Your task to perform on an android device: Go to internet settings Image 0: 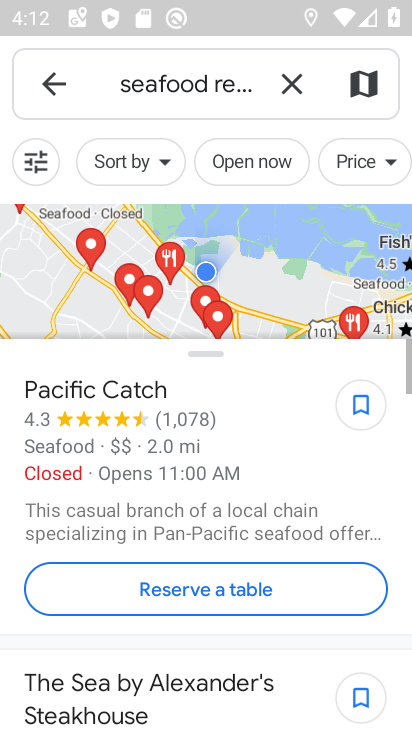
Step 0: press back button
Your task to perform on an android device: Go to internet settings Image 1: 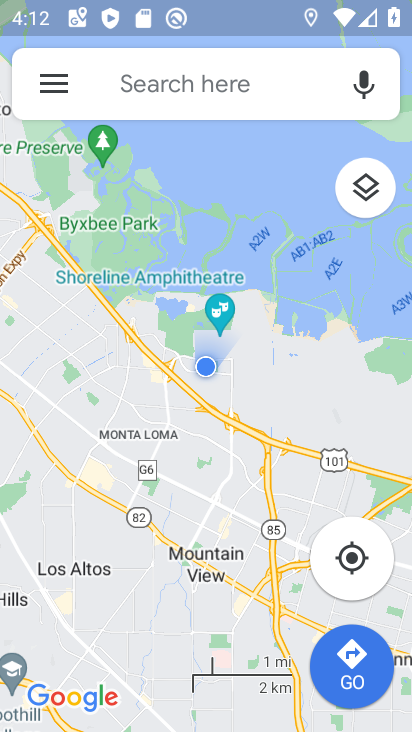
Step 1: press back button
Your task to perform on an android device: Go to internet settings Image 2: 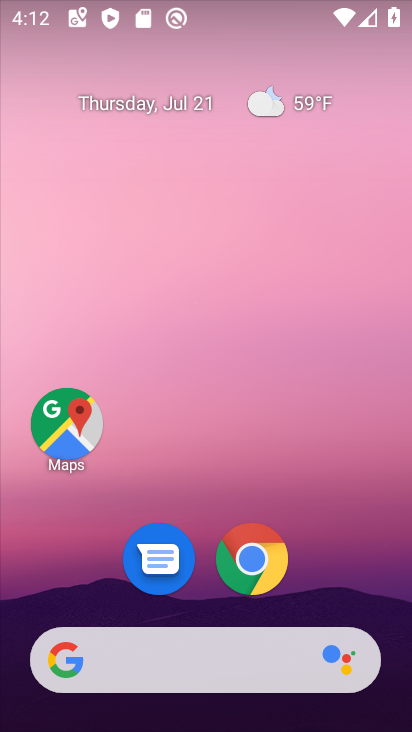
Step 2: drag from (175, 595) to (247, 47)
Your task to perform on an android device: Go to internet settings Image 3: 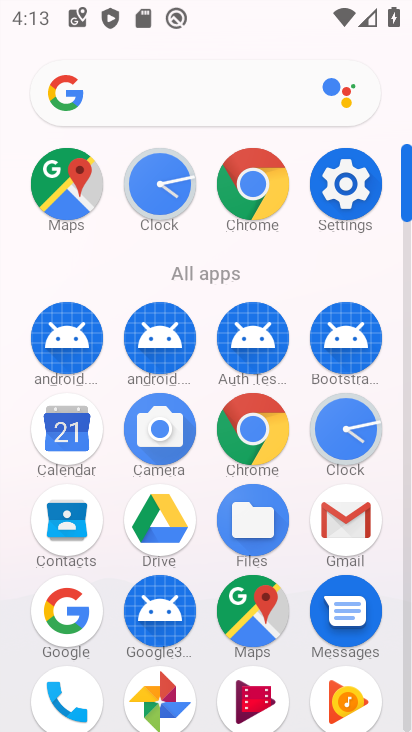
Step 3: click (369, 185)
Your task to perform on an android device: Go to internet settings Image 4: 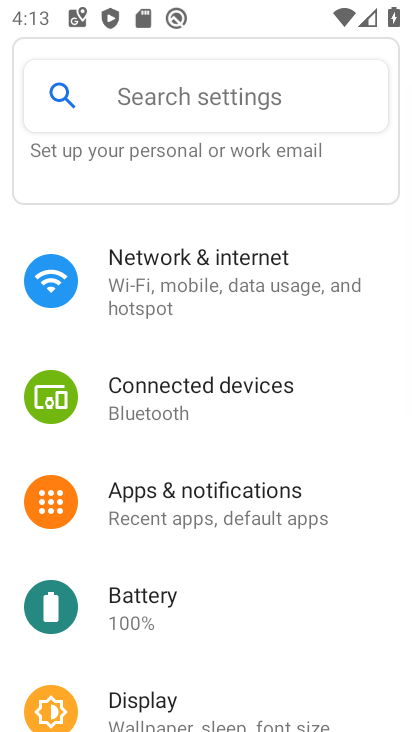
Step 4: drag from (251, 223) to (252, 633)
Your task to perform on an android device: Go to internet settings Image 5: 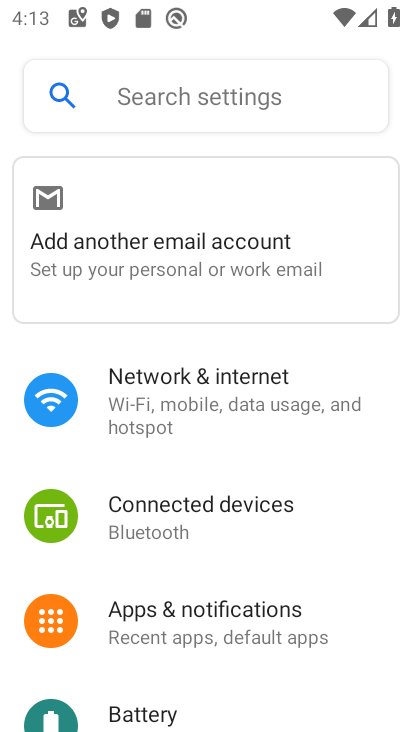
Step 5: click (214, 394)
Your task to perform on an android device: Go to internet settings Image 6: 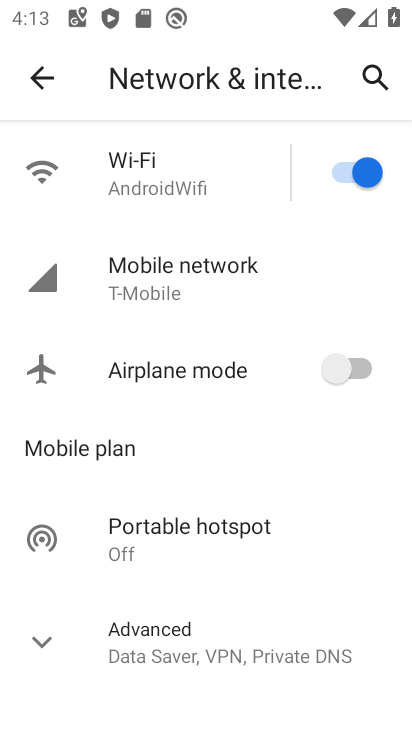
Step 6: task complete